Your task to perform on an android device: turn notification dots off Image 0: 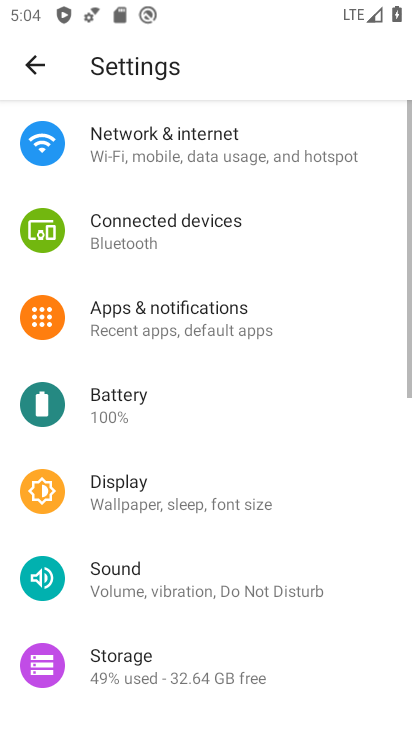
Step 0: press home button
Your task to perform on an android device: turn notification dots off Image 1: 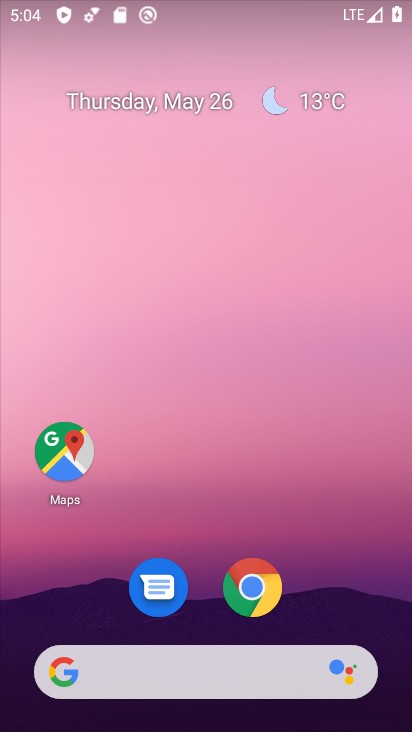
Step 1: drag from (228, 722) to (227, 129)
Your task to perform on an android device: turn notification dots off Image 2: 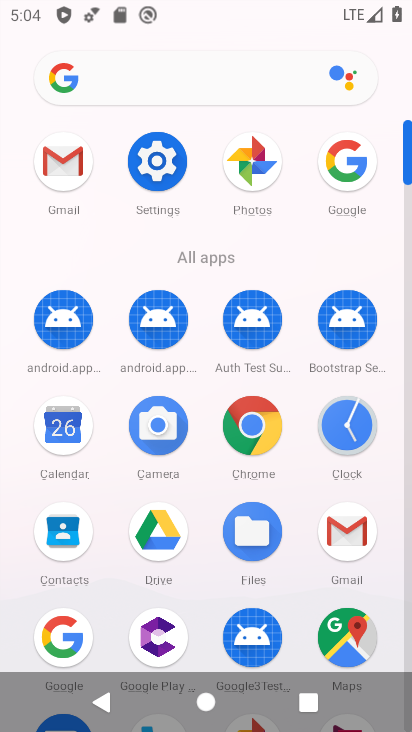
Step 2: click (164, 172)
Your task to perform on an android device: turn notification dots off Image 3: 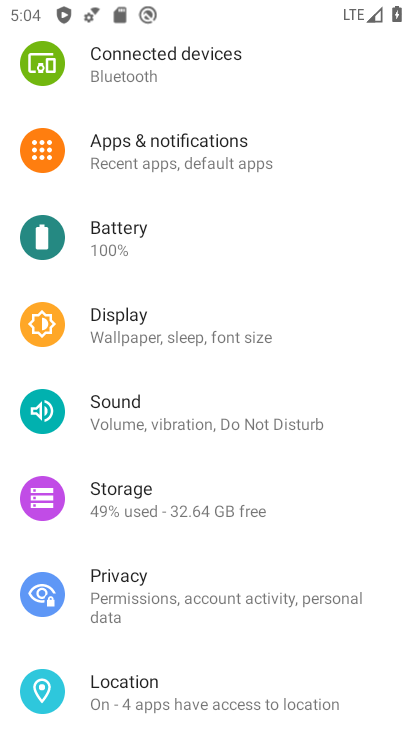
Step 3: click (182, 142)
Your task to perform on an android device: turn notification dots off Image 4: 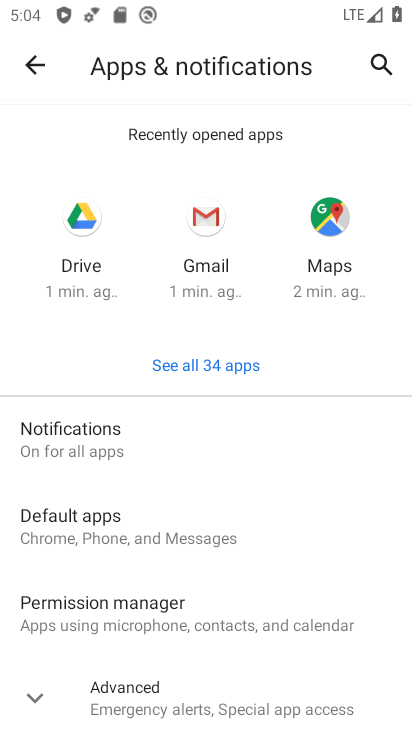
Step 4: click (73, 437)
Your task to perform on an android device: turn notification dots off Image 5: 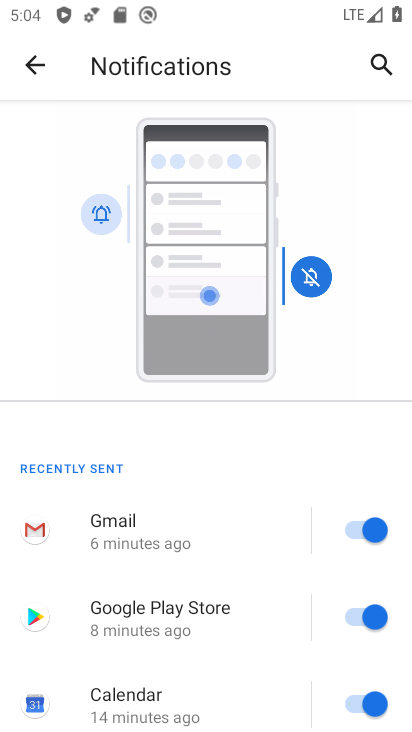
Step 5: drag from (152, 720) to (158, 282)
Your task to perform on an android device: turn notification dots off Image 6: 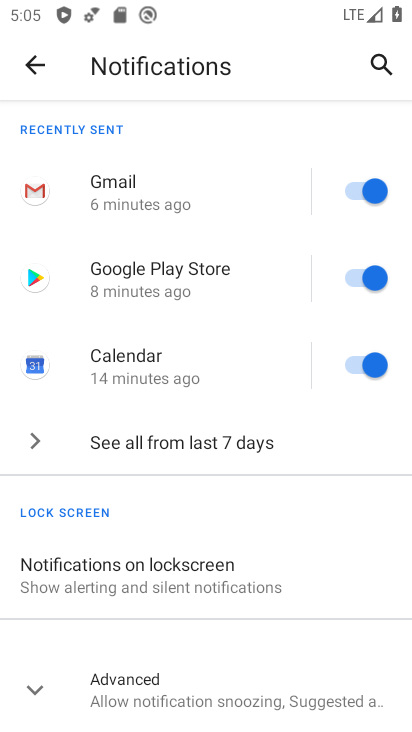
Step 6: click (131, 685)
Your task to perform on an android device: turn notification dots off Image 7: 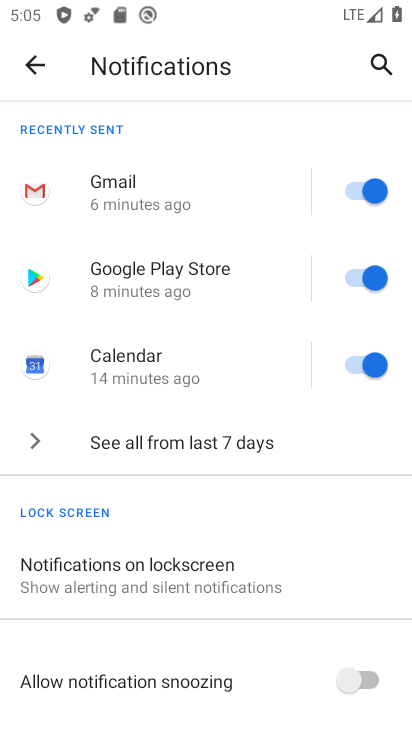
Step 7: drag from (210, 685) to (213, 295)
Your task to perform on an android device: turn notification dots off Image 8: 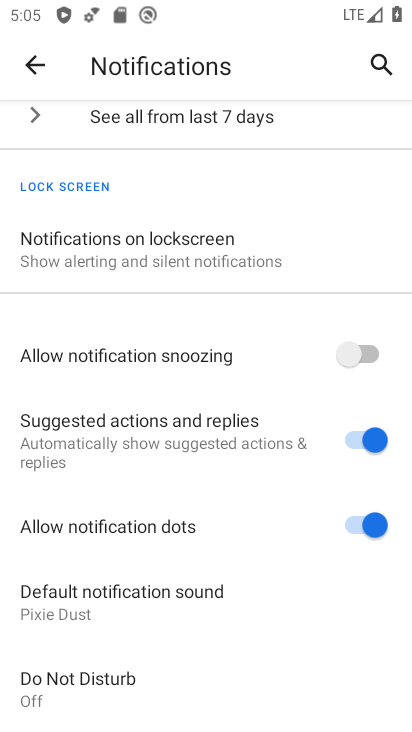
Step 8: click (354, 521)
Your task to perform on an android device: turn notification dots off Image 9: 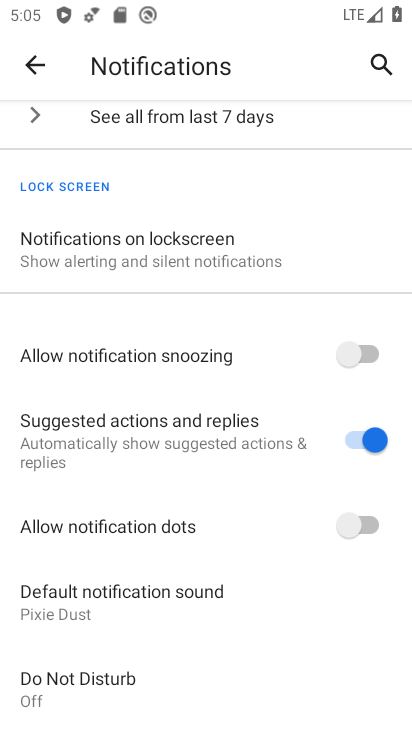
Step 9: task complete